Your task to perform on an android device: turn on data saver in the chrome app Image 0: 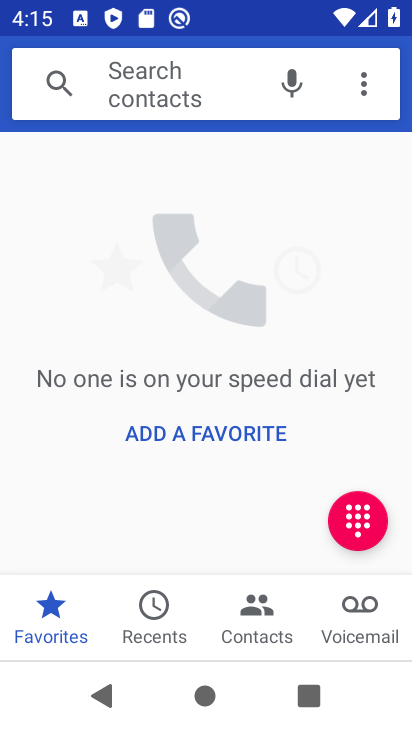
Step 0: press home button
Your task to perform on an android device: turn on data saver in the chrome app Image 1: 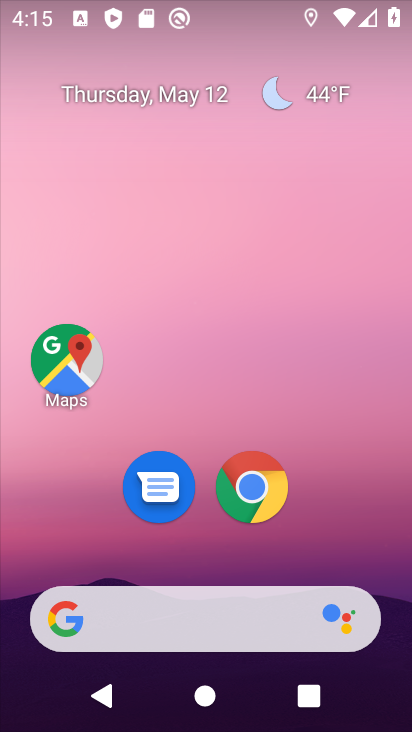
Step 1: click (256, 481)
Your task to perform on an android device: turn on data saver in the chrome app Image 2: 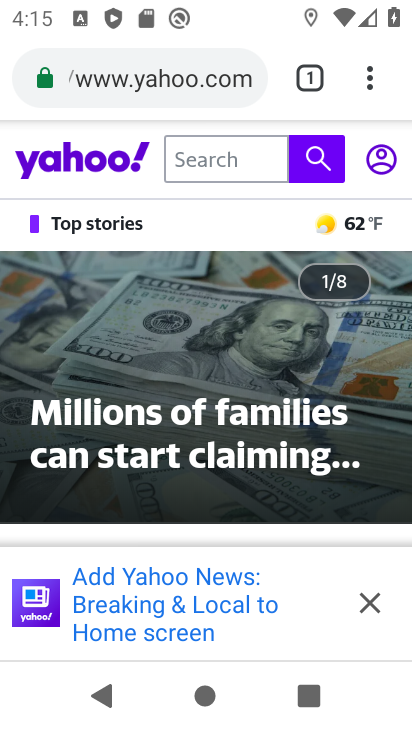
Step 2: click (366, 75)
Your task to perform on an android device: turn on data saver in the chrome app Image 3: 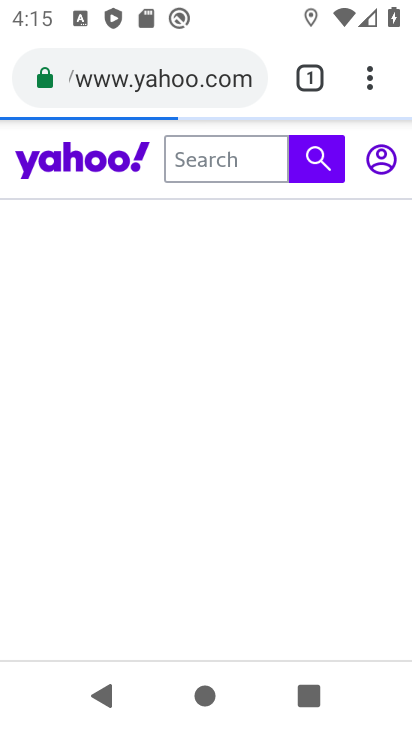
Step 3: click (362, 65)
Your task to perform on an android device: turn on data saver in the chrome app Image 4: 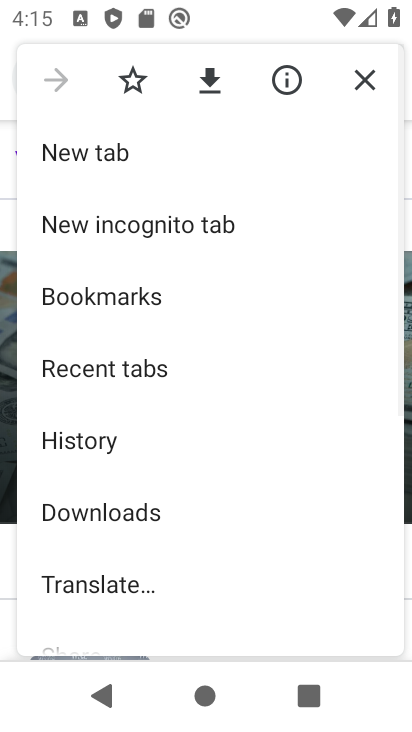
Step 4: drag from (263, 600) to (197, 203)
Your task to perform on an android device: turn on data saver in the chrome app Image 5: 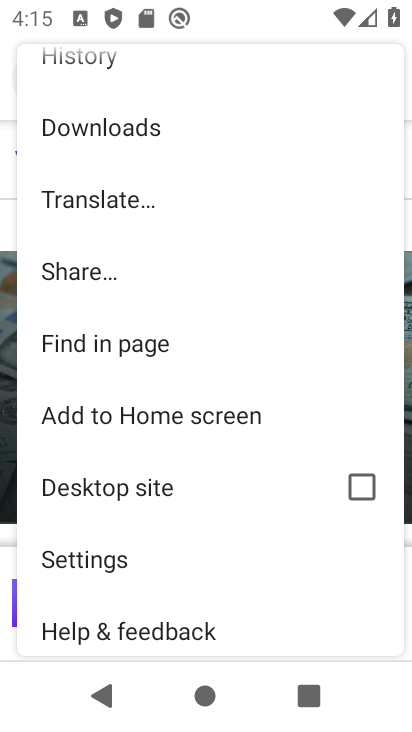
Step 5: click (179, 547)
Your task to perform on an android device: turn on data saver in the chrome app Image 6: 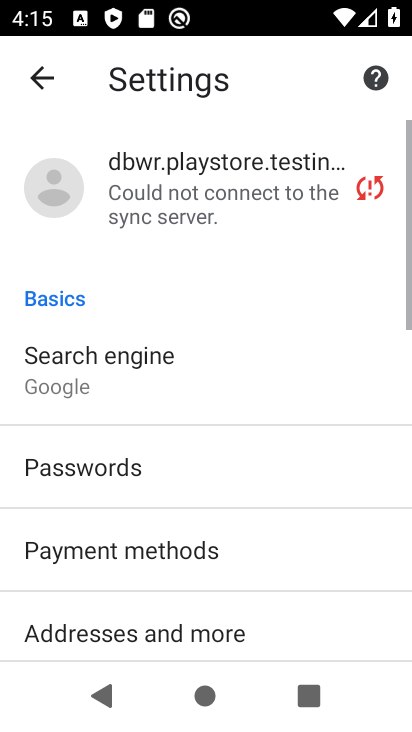
Step 6: drag from (177, 540) to (160, 167)
Your task to perform on an android device: turn on data saver in the chrome app Image 7: 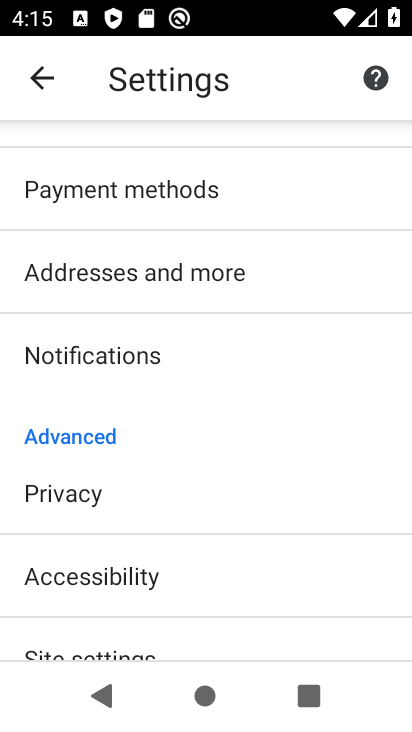
Step 7: drag from (238, 556) to (268, 214)
Your task to perform on an android device: turn on data saver in the chrome app Image 8: 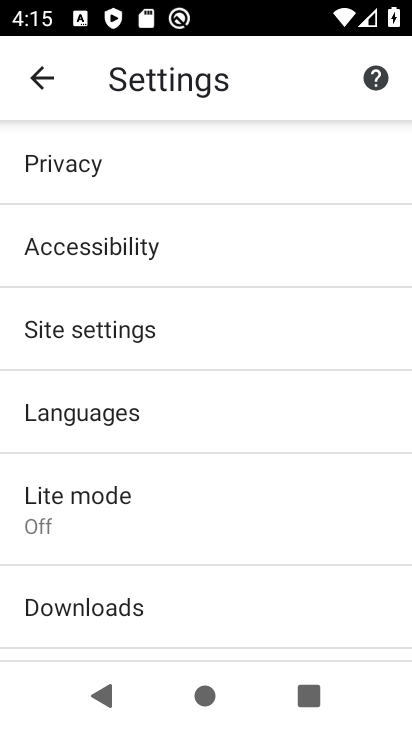
Step 8: drag from (293, 530) to (301, 260)
Your task to perform on an android device: turn on data saver in the chrome app Image 9: 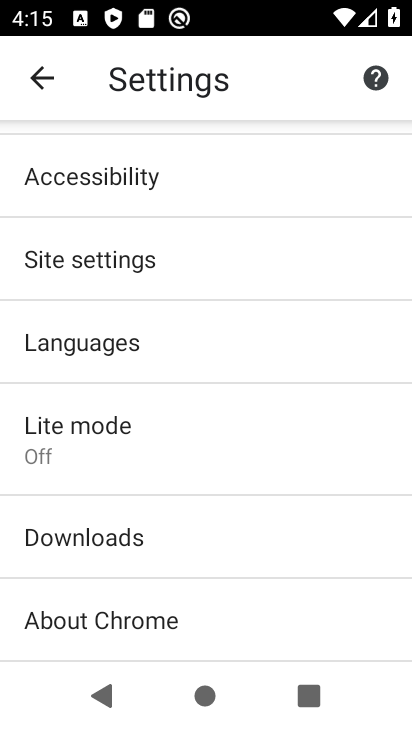
Step 9: click (222, 421)
Your task to perform on an android device: turn on data saver in the chrome app Image 10: 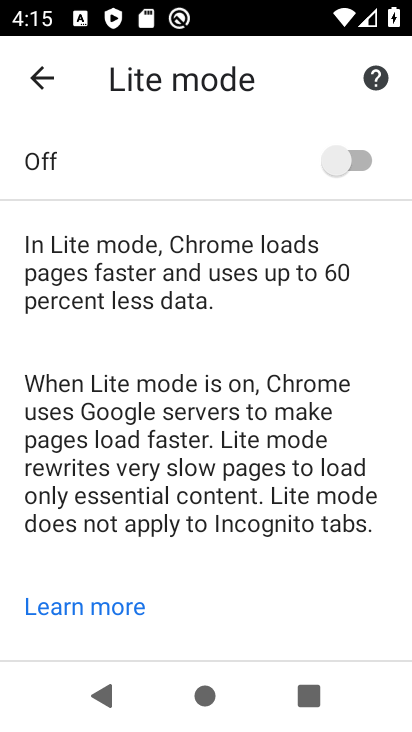
Step 10: click (334, 146)
Your task to perform on an android device: turn on data saver in the chrome app Image 11: 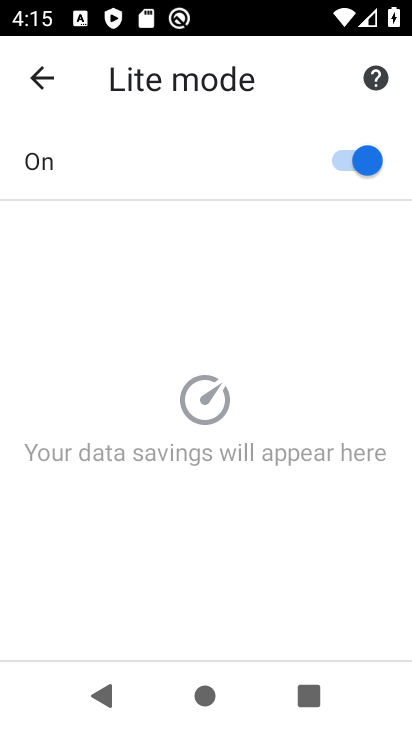
Step 11: task complete